Your task to perform on an android device: Go to Google Image 0: 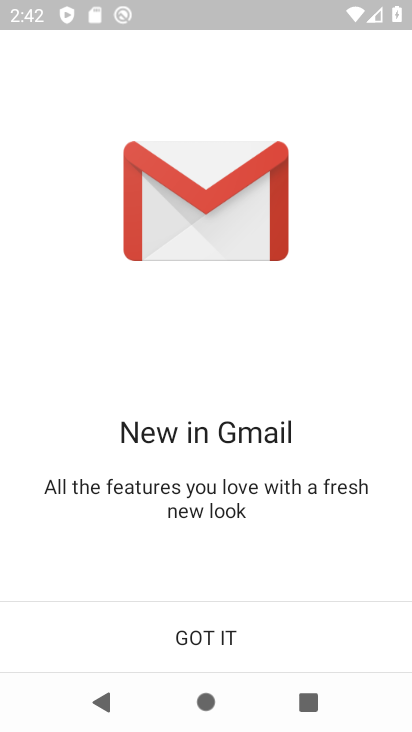
Step 0: press home button
Your task to perform on an android device: Go to Google Image 1: 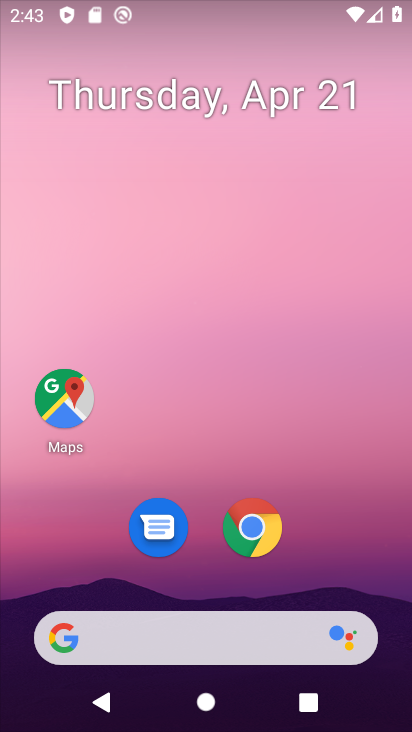
Step 1: drag from (336, 568) to (274, 174)
Your task to perform on an android device: Go to Google Image 2: 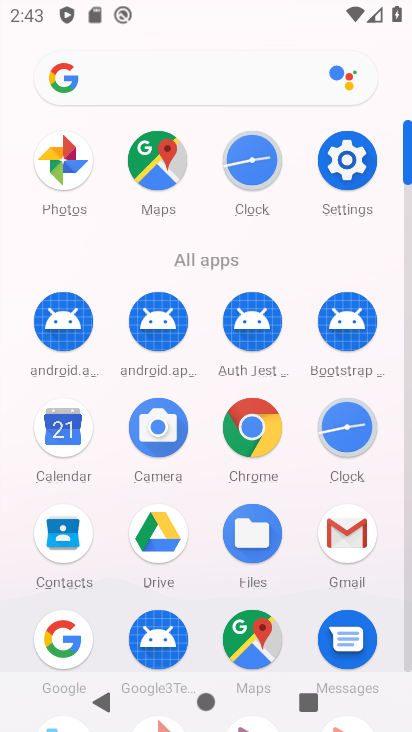
Step 2: click (81, 623)
Your task to perform on an android device: Go to Google Image 3: 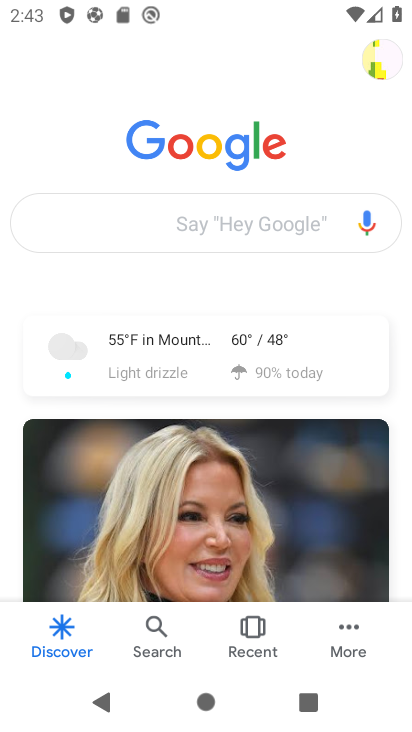
Step 3: task complete